Your task to perform on an android device: turn on sleep mode Image 0: 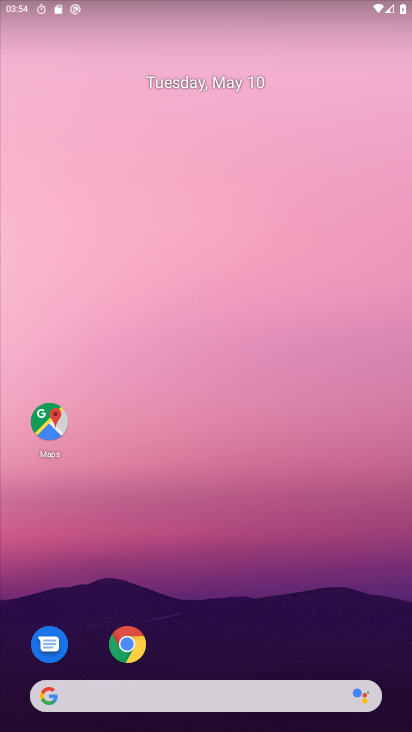
Step 0: press home button
Your task to perform on an android device: turn on sleep mode Image 1: 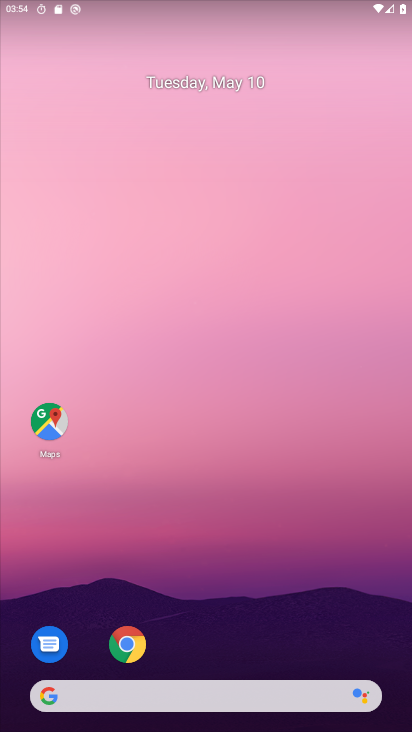
Step 1: drag from (205, 653) to (212, 88)
Your task to perform on an android device: turn on sleep mode Image 2: 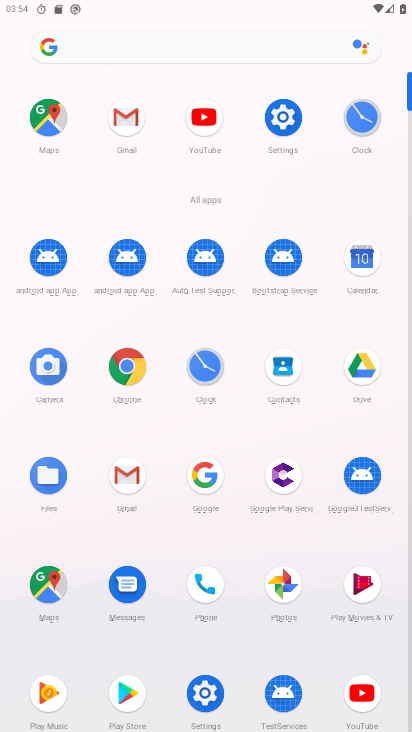
Step 2: click (285, 110)
Your task to perform on an android device: turn on sleep mode Image 3: 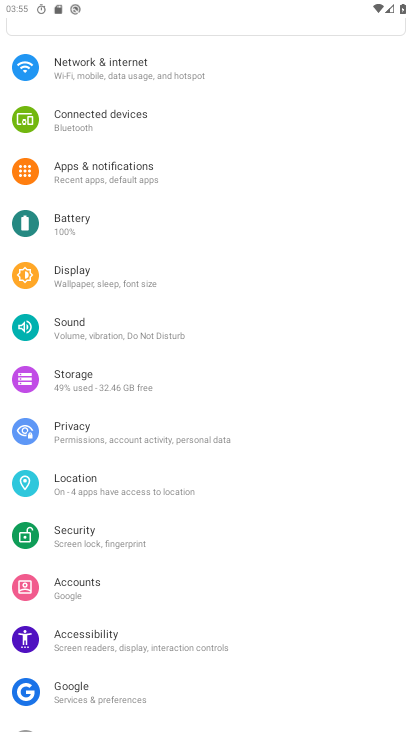
Step 3: click (105, 272)
Your task to perform on an android device: turn on sleep mode Image 4: 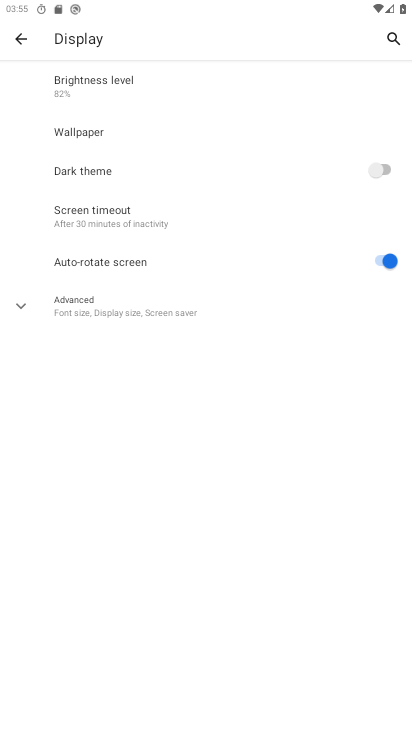
Step 4: click (22, 299)
Your task to perform on an android device: turn on sleep mode Image 5: 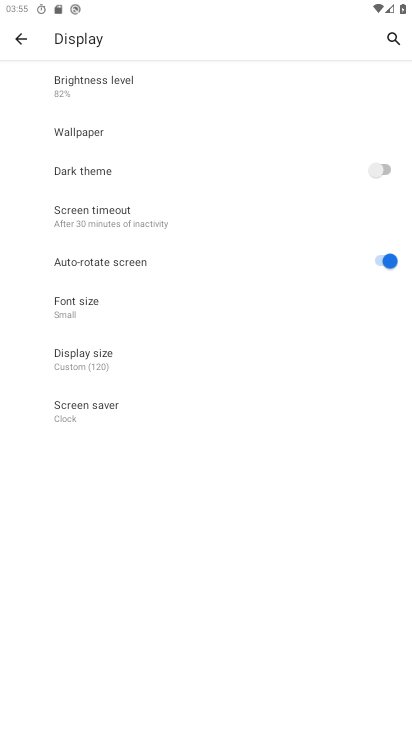
Step 5: task complete